Your task to perform on an android device: refresh tabs in the chrome app Image 0: 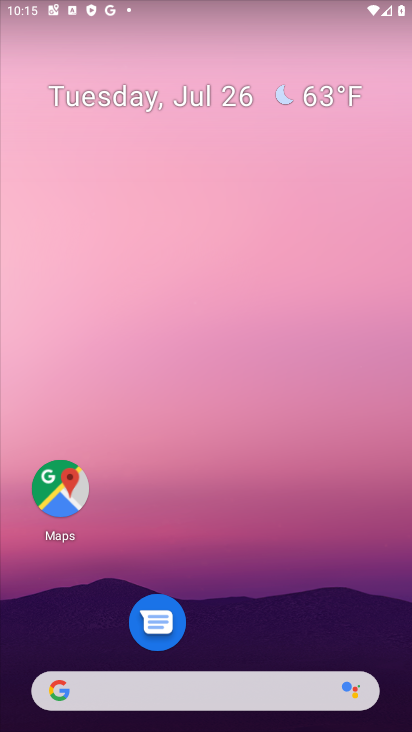
Step 0: drag from (252, 423) to (284, 88)
Your task to perform on an android device: refresh tabs in the chrome app Image 1: 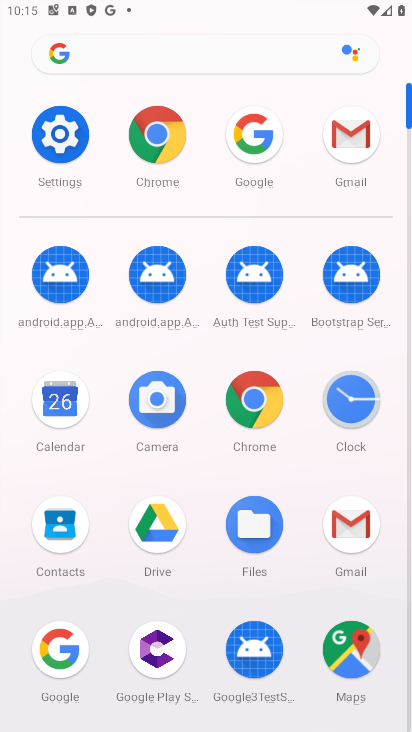
Step 1: click (156, 131)
Your task to perform on an android device: refresh tabs in the chrome app Image 2: 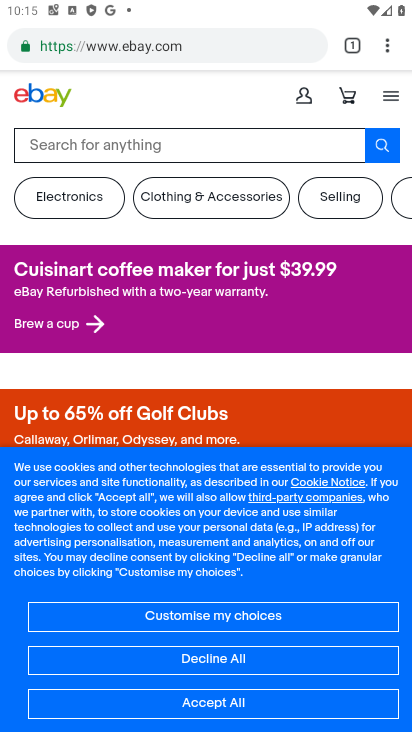
Step 2: click (380, 42)
Your task to perform on an android device: refresh tabs in the chrome app Image 3: 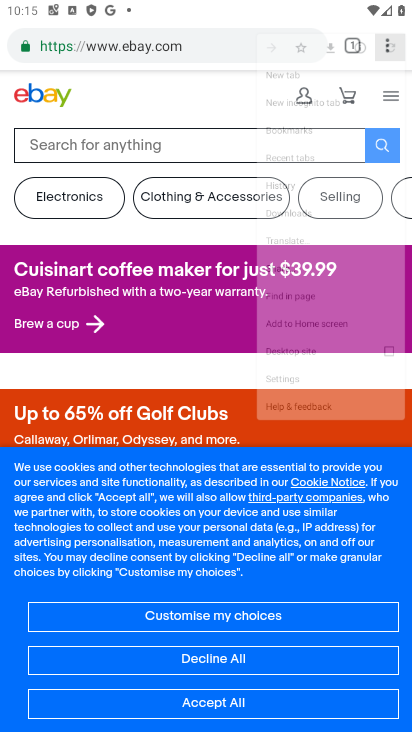
Step 3: click (392, 51)
Your task to perform on an android device: refresh tabs in the chrome app Image 4: 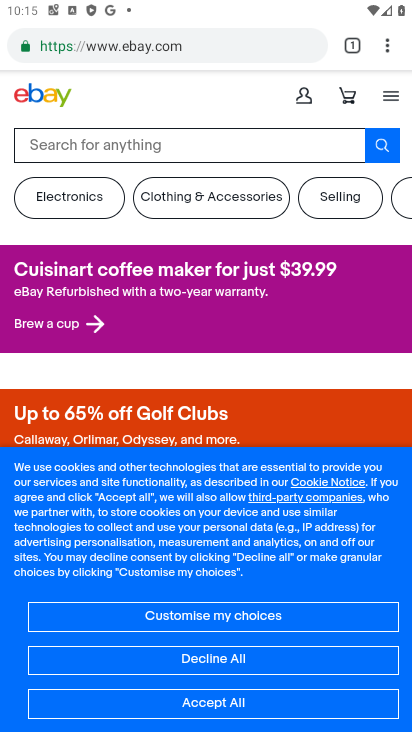
Step 4: task complete